Your task to perform on an android device: Open Google Chrome and open the bookmarks view Image 0: 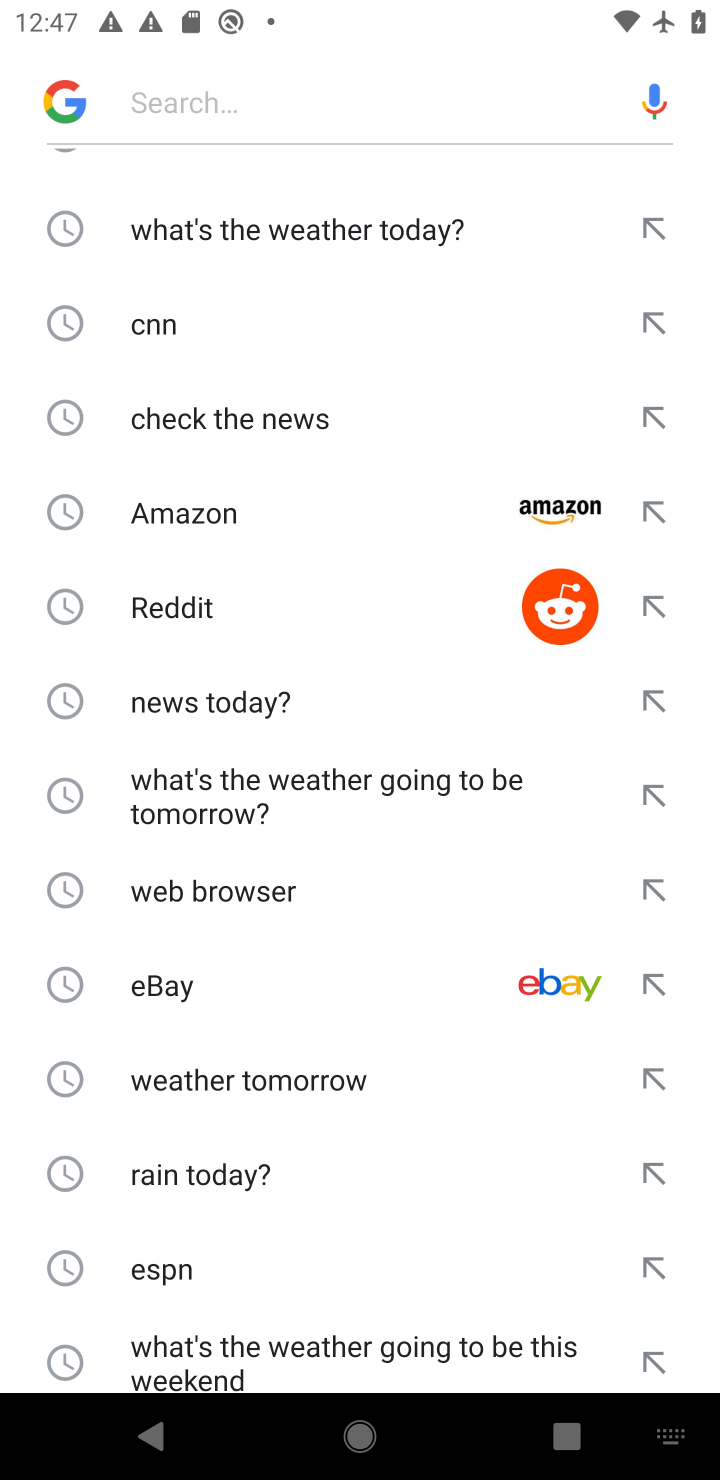
Step 0: press home button
Your task to perform on an android device: Open Google Chrome and open the bookmarks view Image 1: 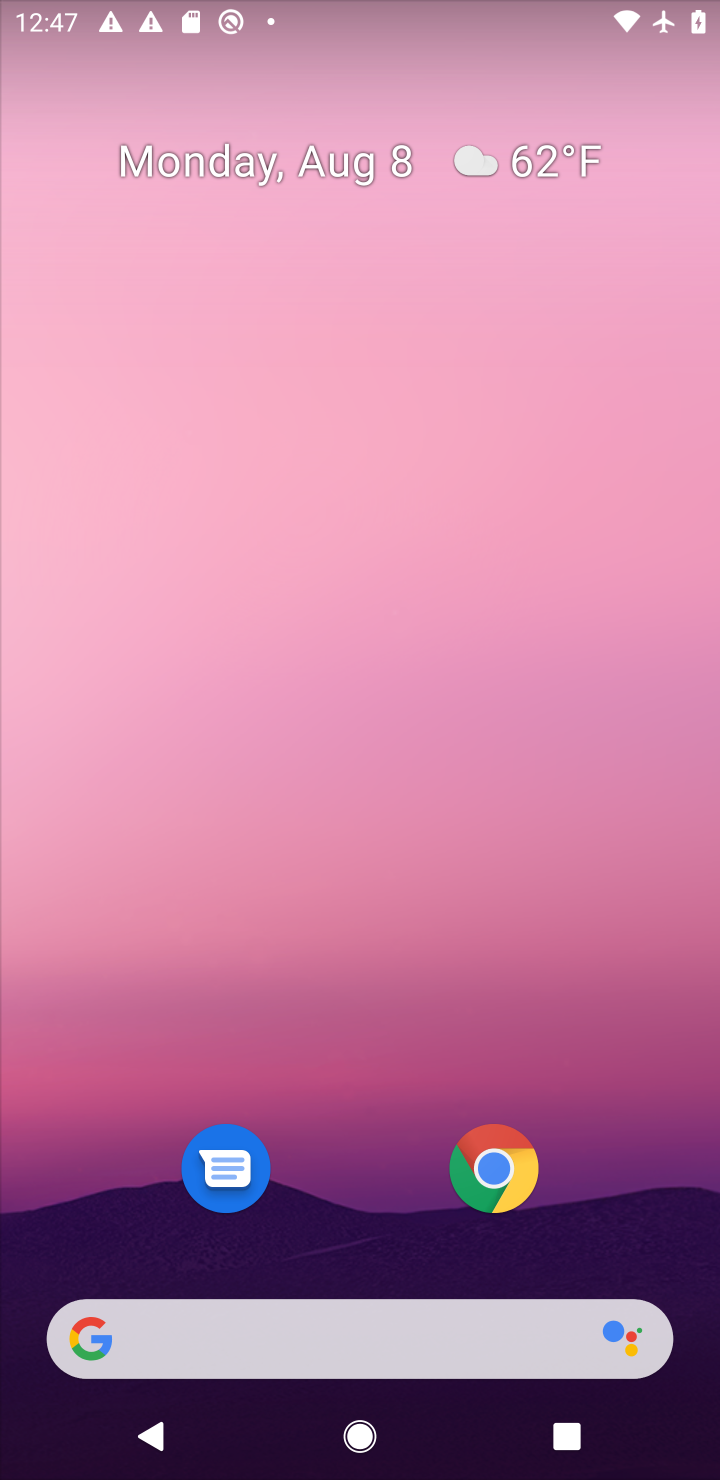
Step 1: click (535, 1201)
Your task to perform on an android device: Open Google Chrome and open the bookmarks view Image 2: 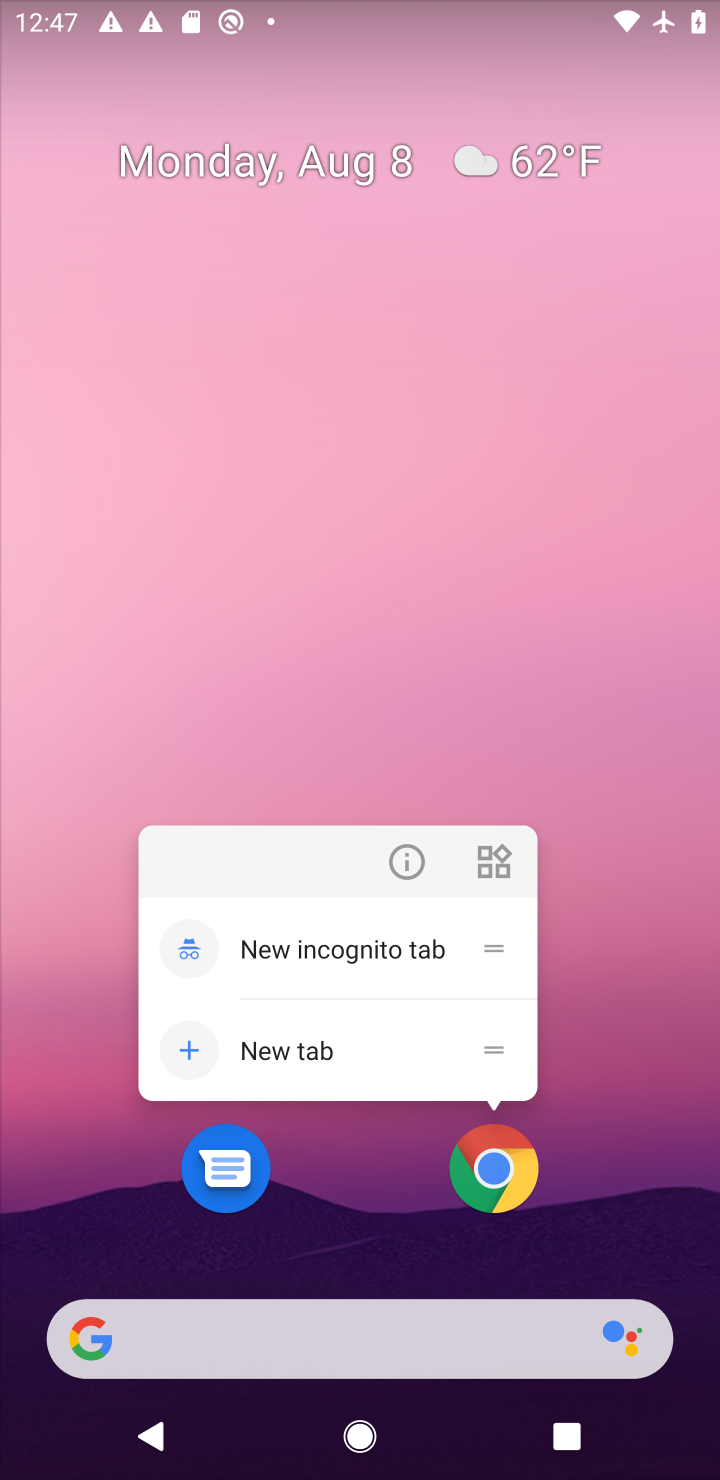
Step 2: click (503, 1189)
Your task to perform on an android device: Open Google Chrome and open the bookmarks view Image 3: 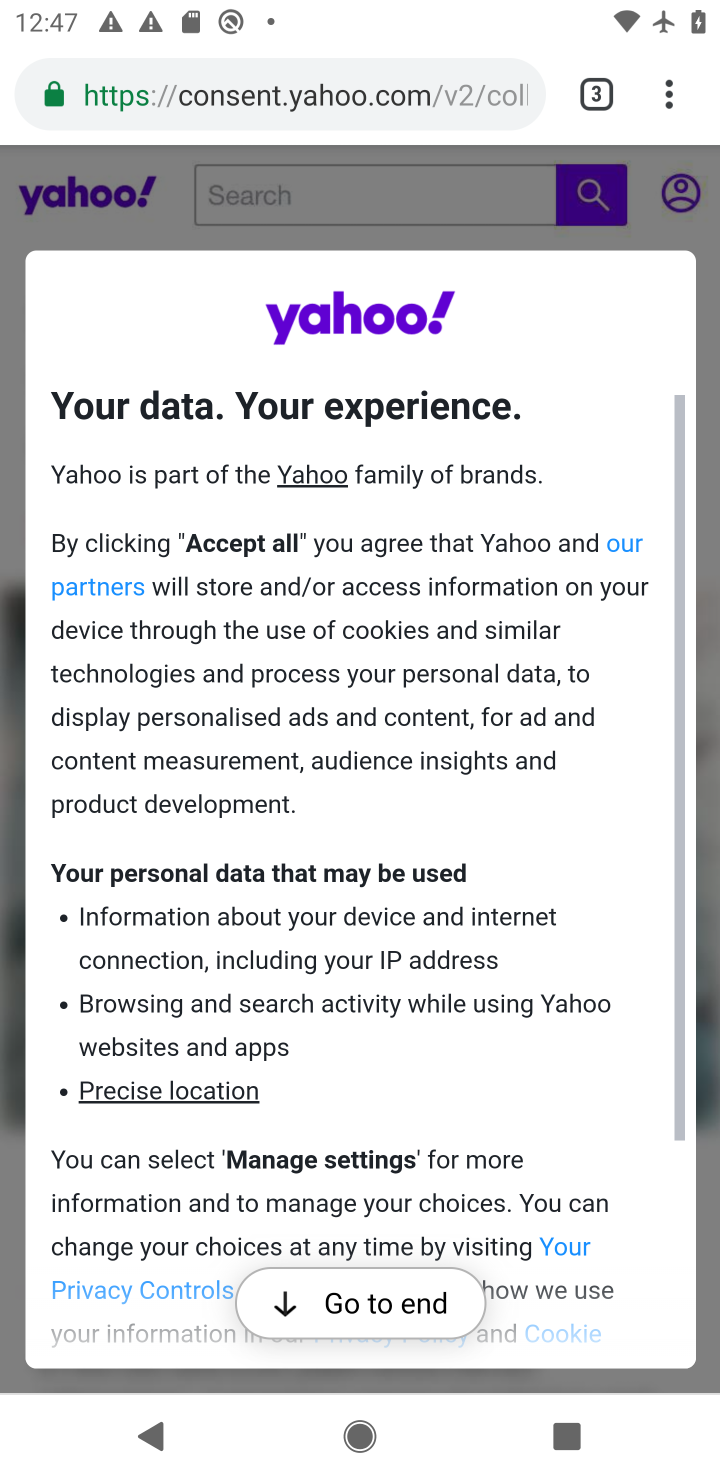
Step 3: click (669, 117)
Your task to perform on an android device: Open Google Chrome and open the bookmarks view Image 4: 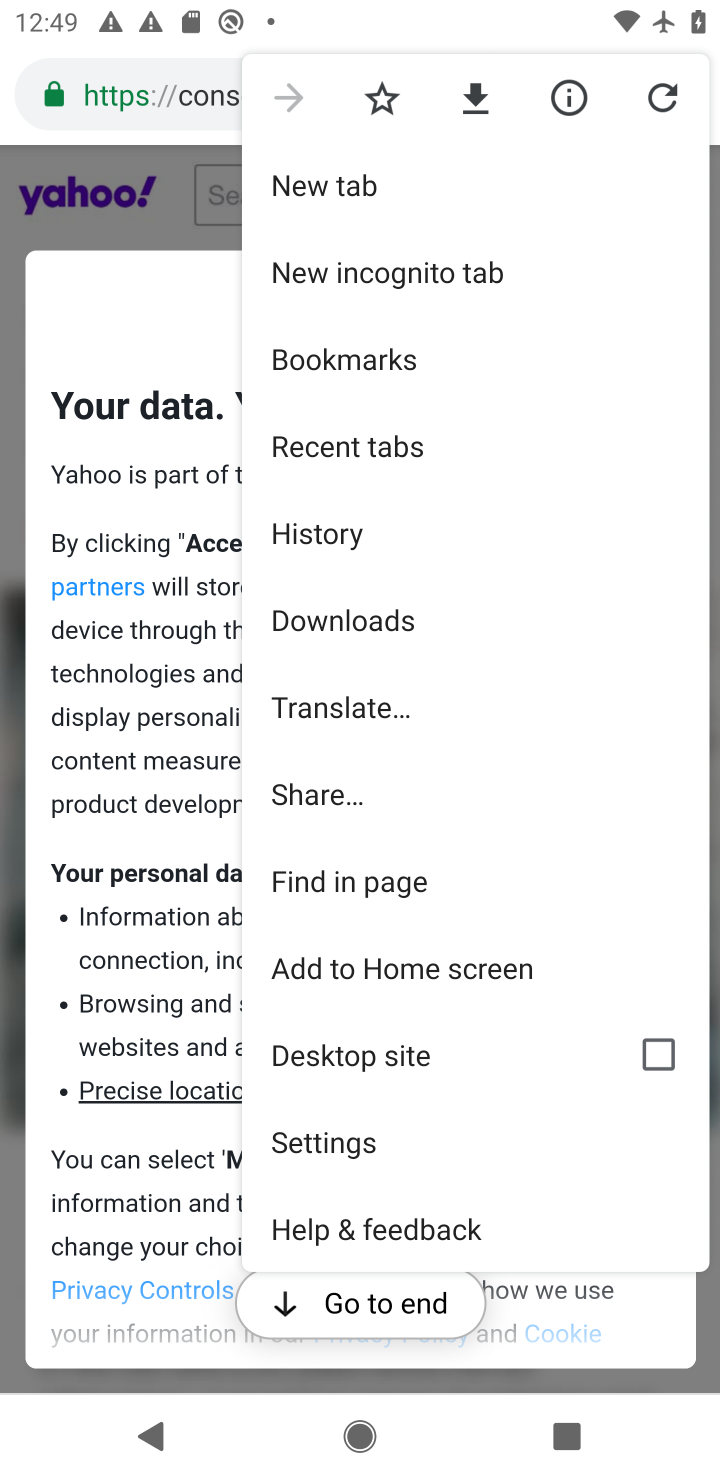
Step 4: click (372, 395)
Your task to perform on an android device: Open Google Chrome and open the bookmarks view Image 5: 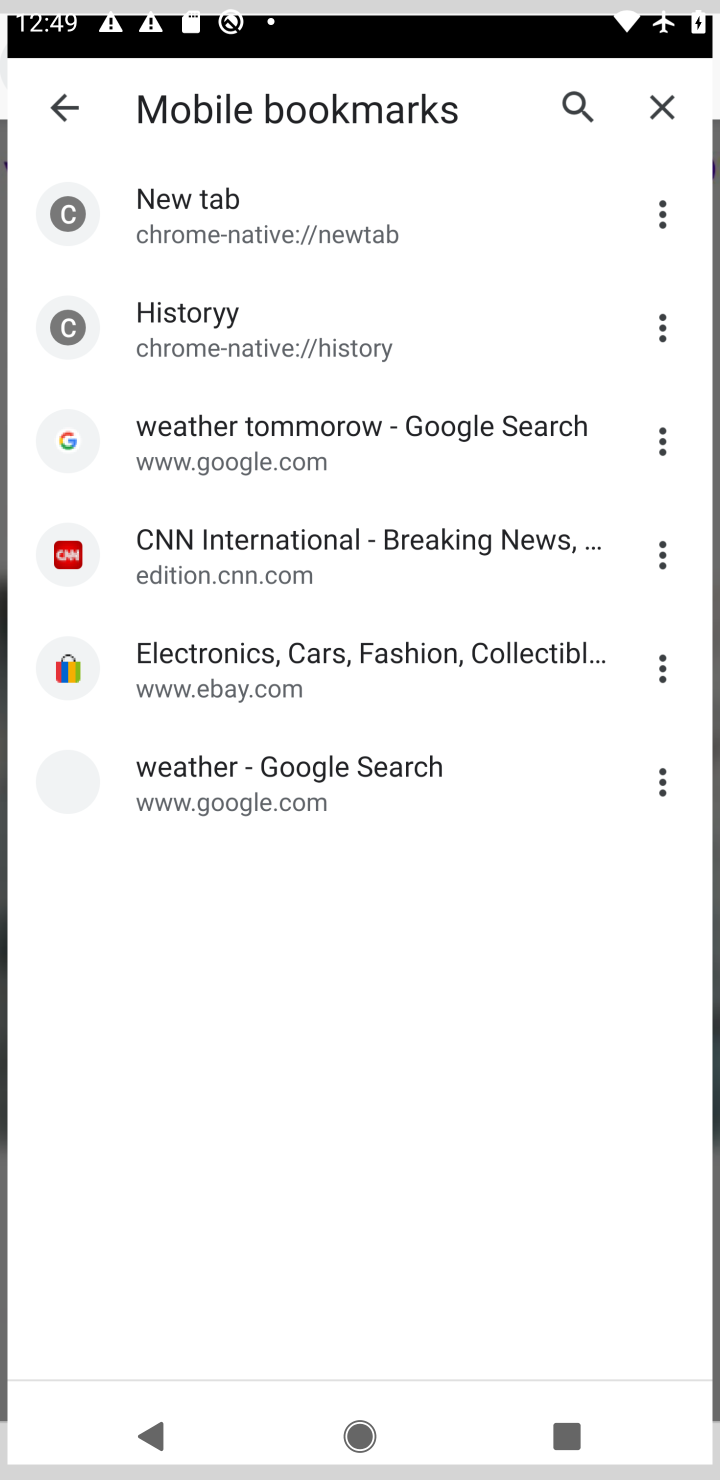
Step 5: task complete